Your task to perform on an android device: check battery use Image 0: 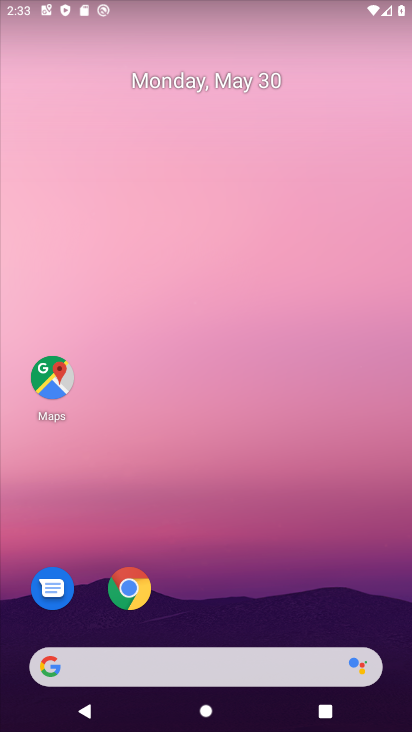
Step 0: drag from (193, 606) to (202, 160)
Your task to perform on an android device: check battery use Image 1: 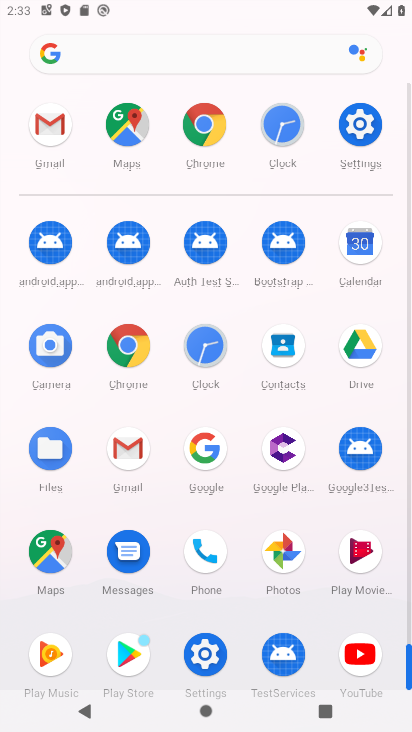
Step 1: click (351, 112)
Your task to perform on an android device: check battery use Image 2: 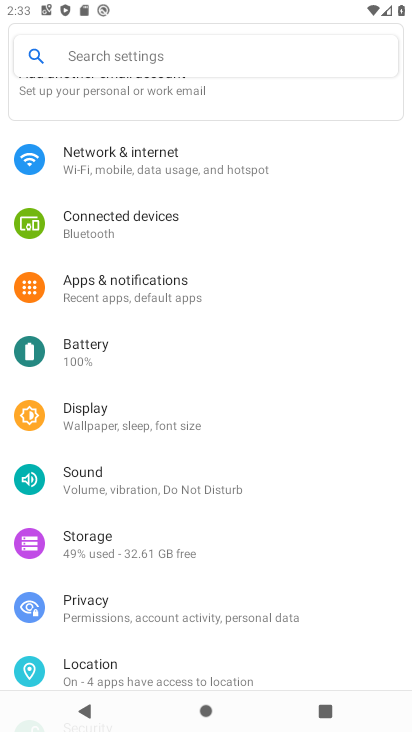
Step 2: click (122, 351)
Your task to perform on an android device: check battery use Image 3: 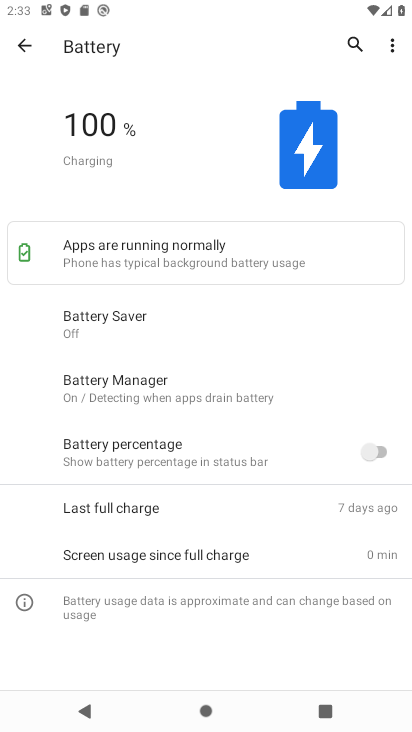
Step 3: task complete